Your task to perform on an android device: add a contact Image 0: 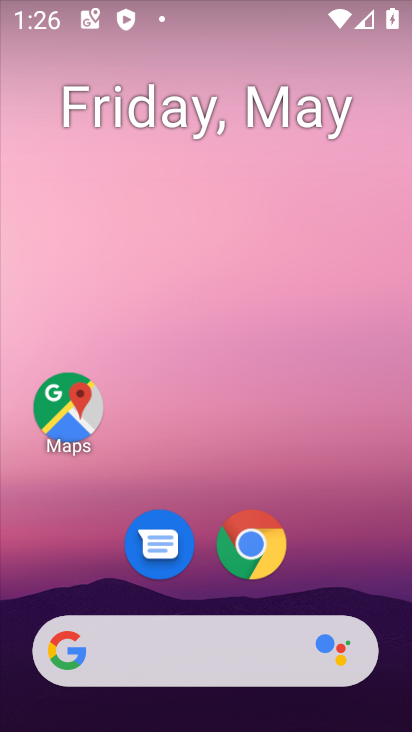
Step 0: drag from (209, 502) to (173, 184)
Your task to perform on an android device: add a contact Image 1: 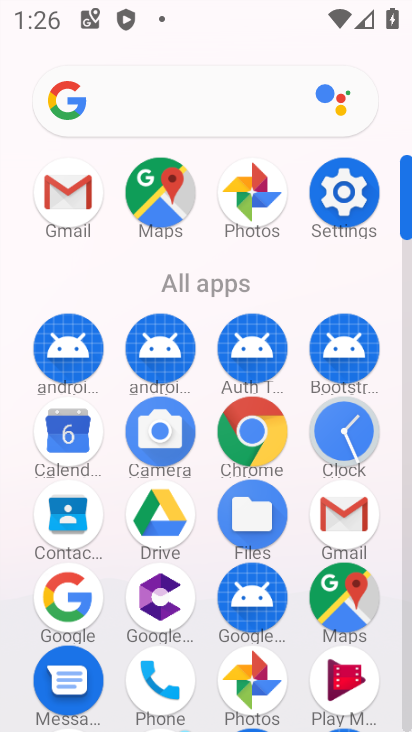
Step 1: click (70, 520)
Your task to perform on an android device: add a contact Image 2: 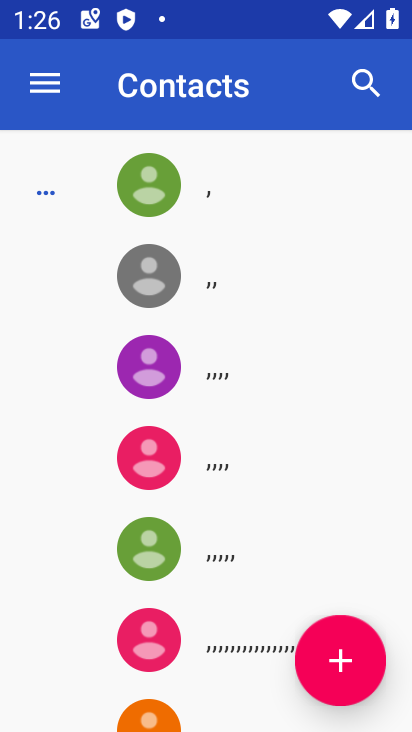
Step 2: click (322, 681)
Your task to perform on an android device: add a contact Image 3: 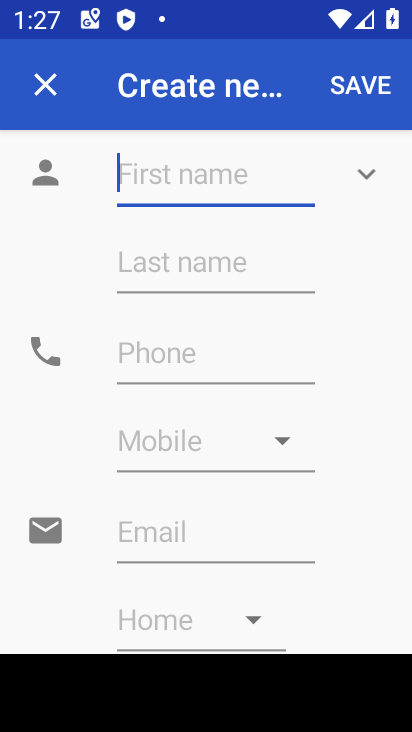
Step 3: type "fdffhgfhg"
Your task to perform on an android device: add a contact Image 4: 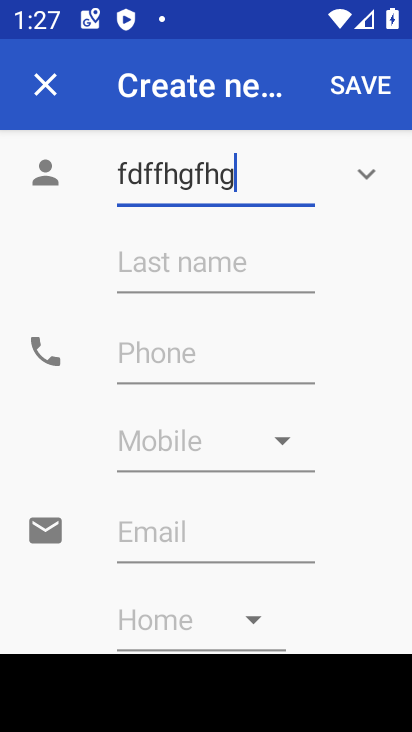
Step 4: type ""
Your task to perform on an android device: add a contact Image 5: 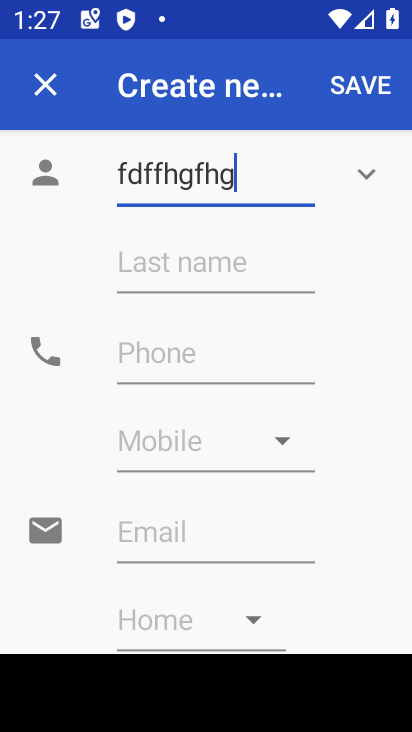
Step 5: click (332, 97)
Your task to perform on an android device: add a contact Image 6: 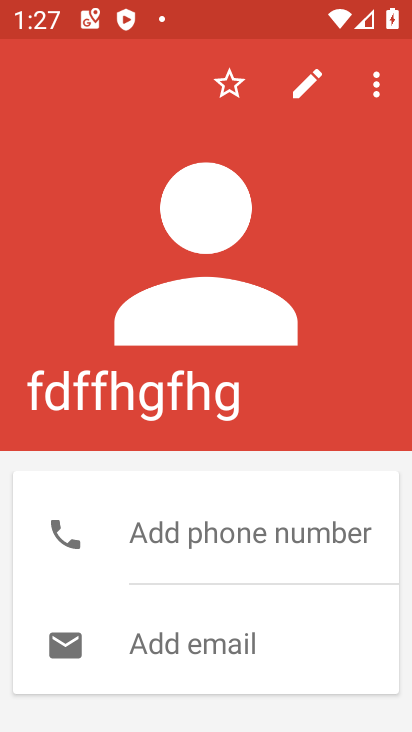
Step 6: task complete